Your task to perform on an android device: Go to internet settings Image 0: 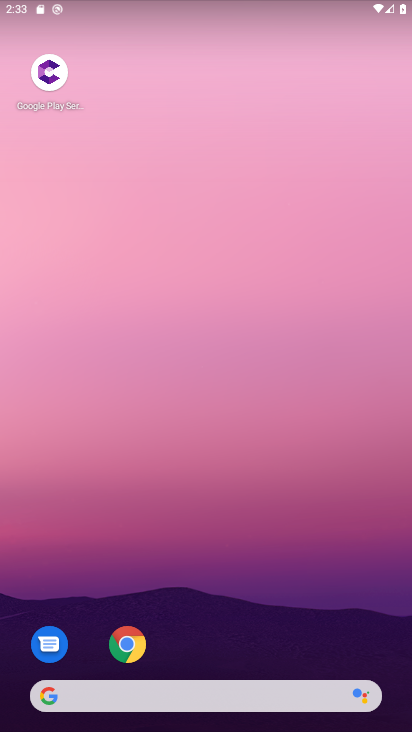
Step 0: drag from (230, 631) to (226, 92)
Your task to perform on an android device: Go to internet settings Image 1: 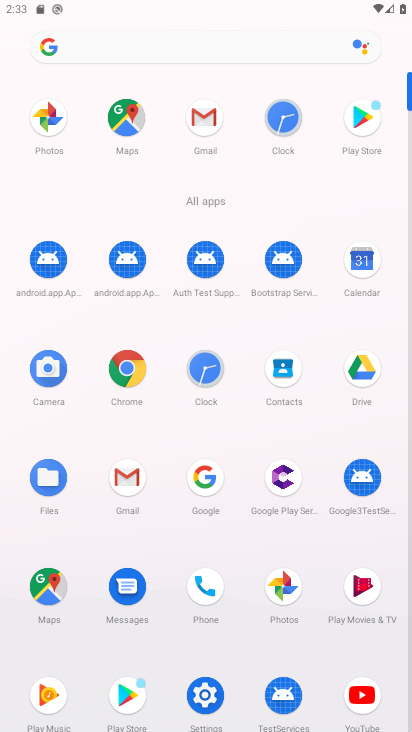
Step 1: click (210, 685)
Your task to perform on an android device: Go to internet settings Image 2: 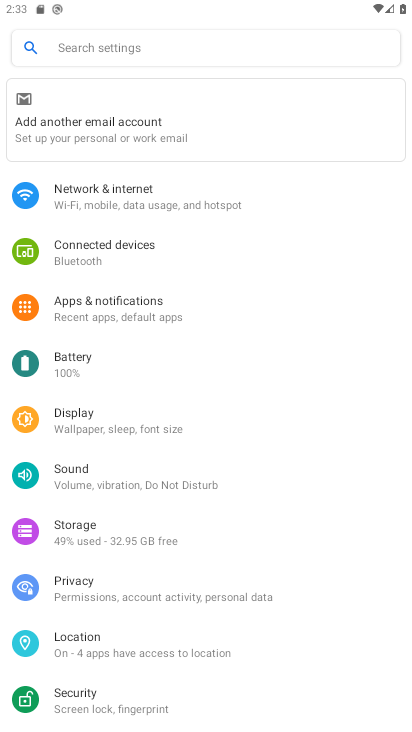
Step 2: click (123, 207)
Your task to perform on an android device: Go to internet settings Image 3: 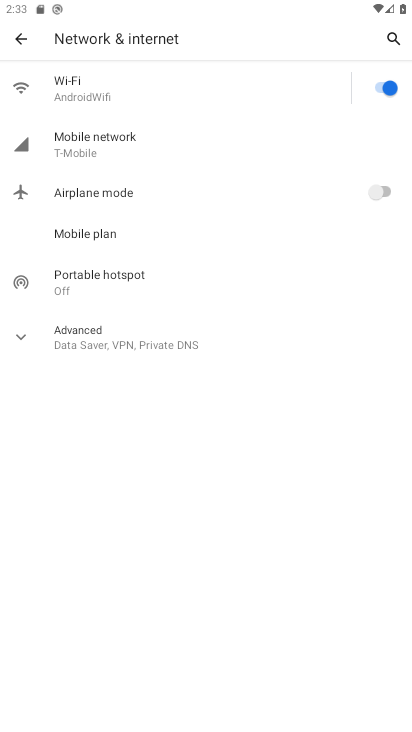
Step 3: click (118, 129)
Your task to perform on an android device: Go to internet settings Image 4: 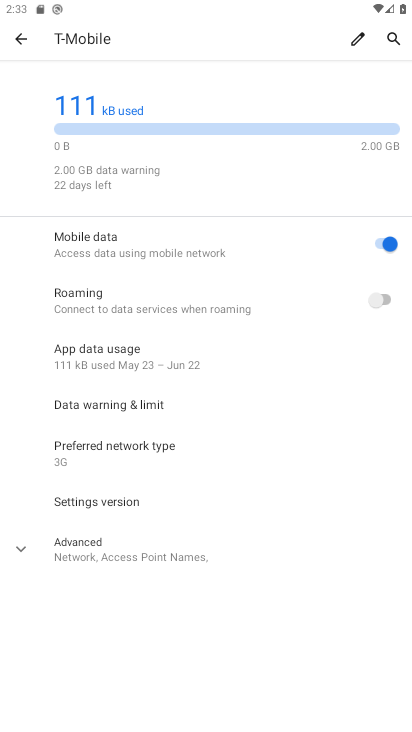
Step 4: task complete